Your task to perform on an android device: turn vacation reply on in the gmail app Image 0: 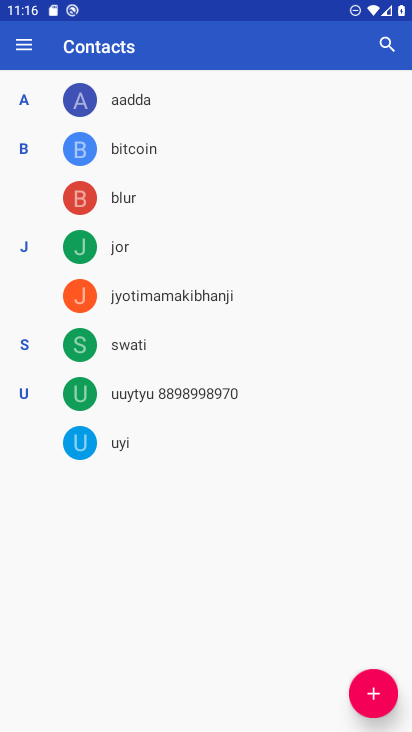
Step 0: press home button
Your task to perform on an android device: turn vacation reply on in the gmail app Image 1: 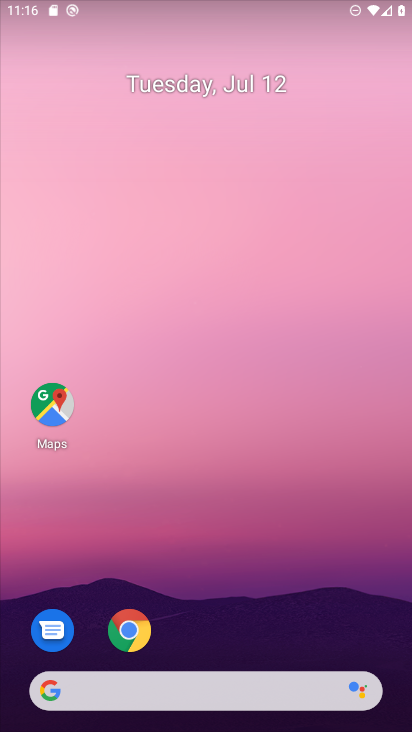
Step 1: drag from (308, 565) to (199, 51)
Your task to perform on an android device: turn vacation reply on in the gmail app Image 2: 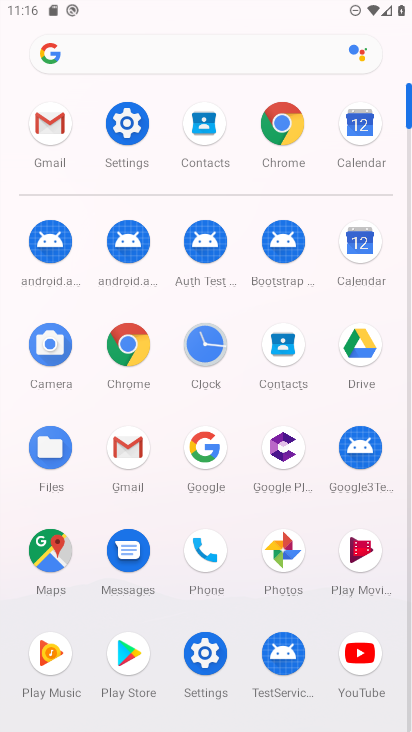
Step 2: click (53, 129)
Your task to perform on an android device: turn vacation reply on in the gmail app Image 3: 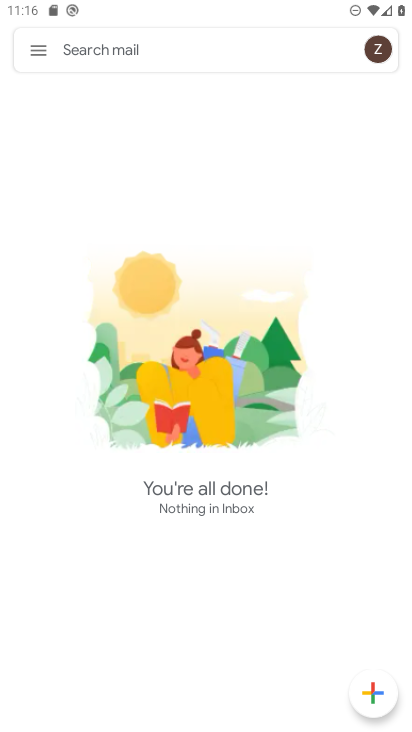
Step 3: click (36, 51)
Your task to perform on an android device: turn vacation reply on in the gmail app Image 4: 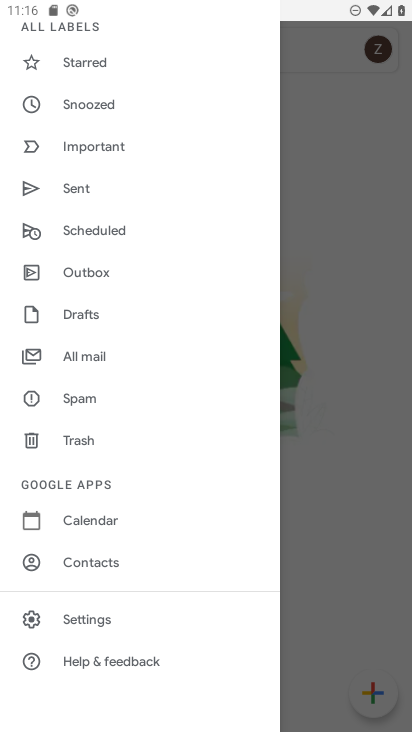
Step 4: click (86, 617)
Your task to perform on an android device: turn vacation reply on in the gmail app Image 5: 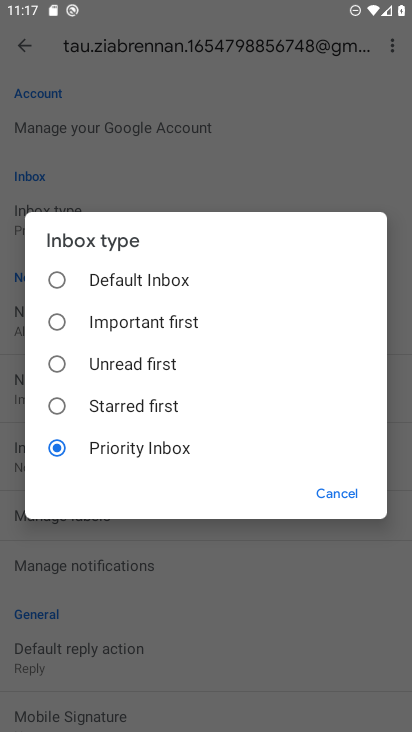
Step 5: click (324, 492)
Your task to perform on an android device: turn vacation reply on in the gmail app Image 6: 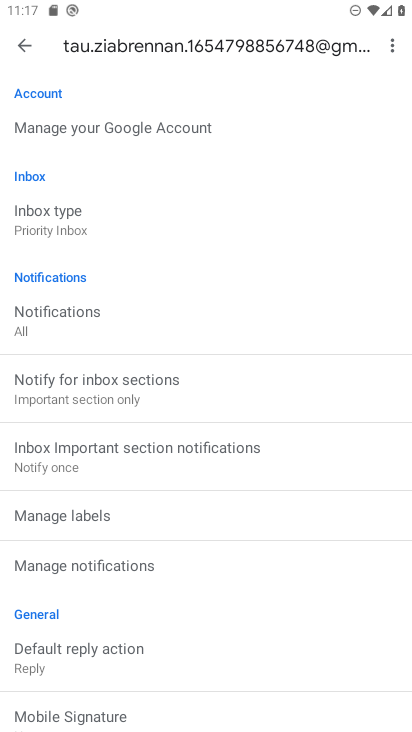
Step 6: drag from (225, 656) to (233, 230)
Your task to perform on an android device: turn vacation reply on in the gmail app Image 7: 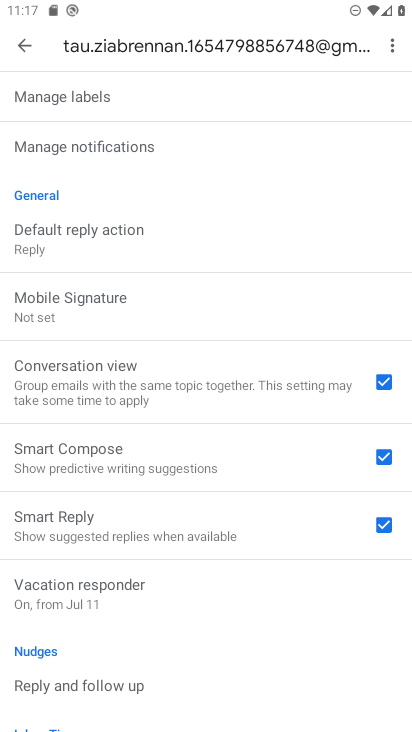
Step 7: click (202, 576)
Your task to perform on an android device: turn vacation reply on in the gmail app Image 8: 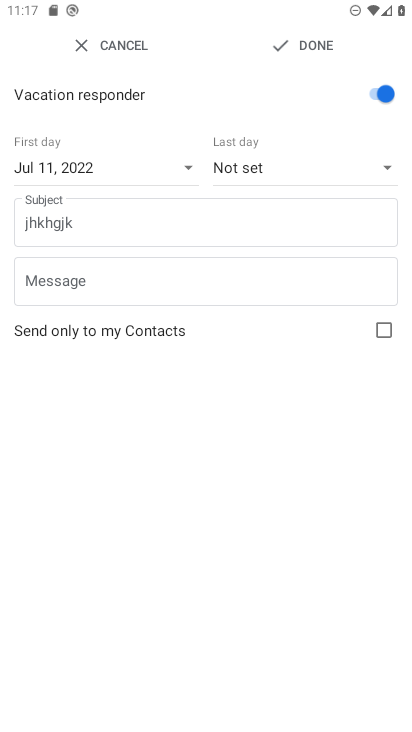
Step 8: task complete